Your task to perform on an android device: Go to eBay Image 0: 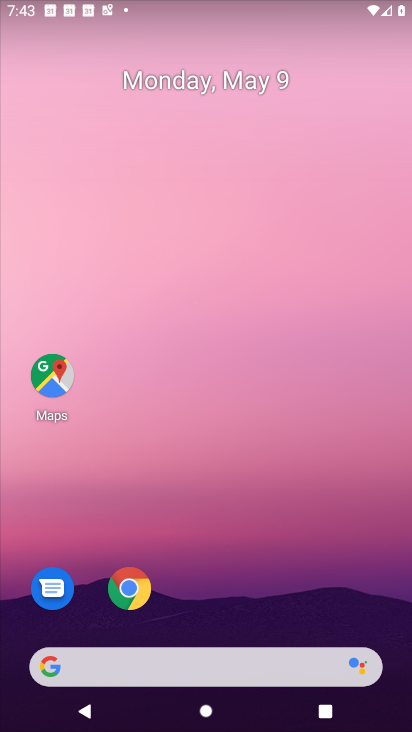
Step 0: press home button
Your task to perform on an android device: Go to eBay Image 1: 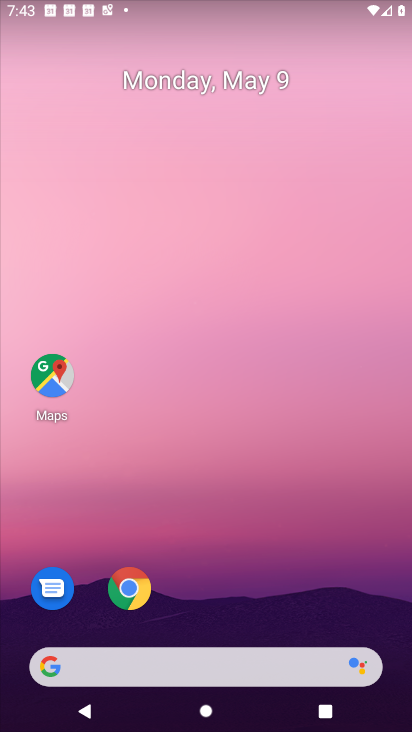
Step 1: click (407, 492)
Your task to perform on an android device: Go to eBay Image 2: 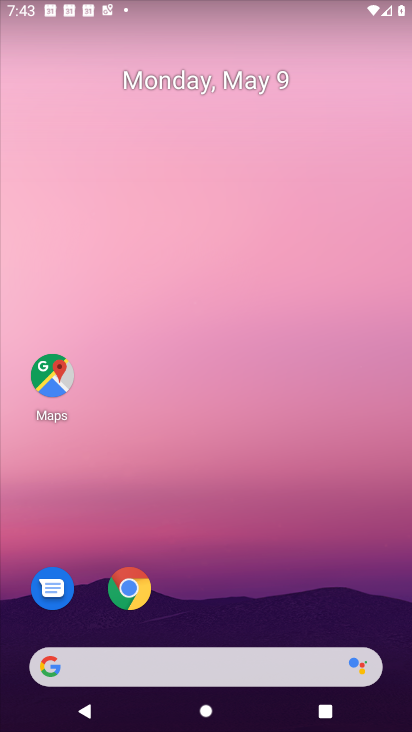
Step 2: drag from (125, 665) to (324, 207)
Your task to perform on an android device: Go to eBay Image 3: 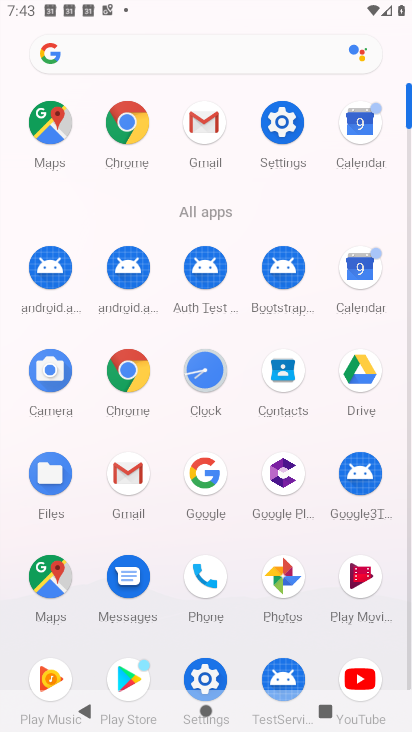
Step 3: click (130, 128)
Your task to perform on an android device: Go to eBay Image 4: 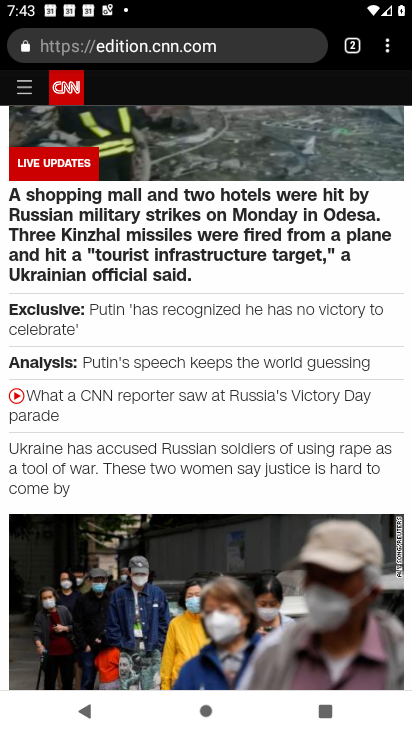
Step 4: drag from (382, 43) to (248, 93)
Your task to perform on an android device: Go to eBay Image 5: 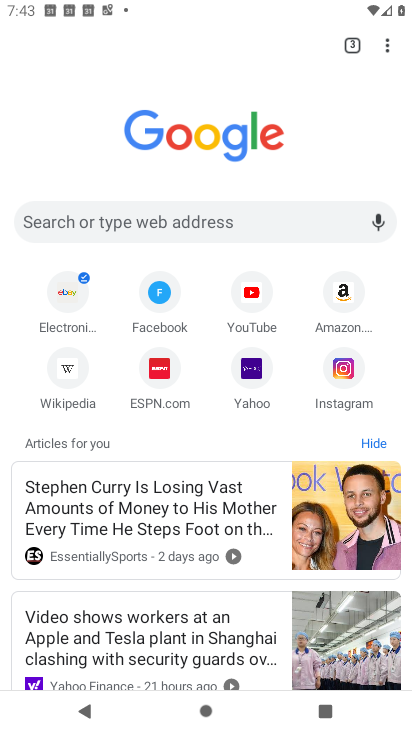
Step 5: click (70, 291)
Your task to perform on an android device: Go to eBay Image 6: 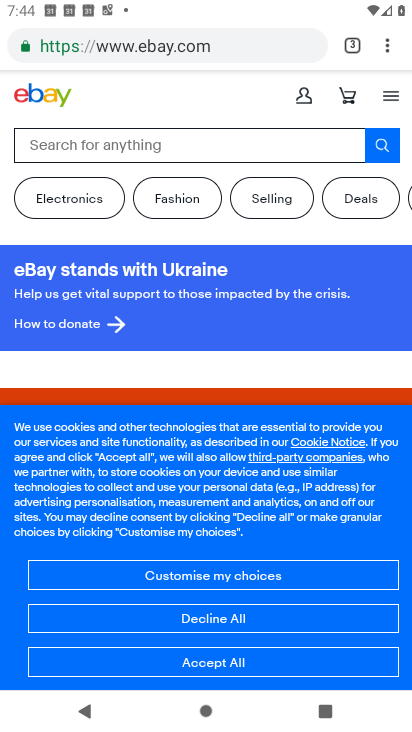
Step 6: task complete